Your task to perform on an android device: Open settings on Google Maps Image 0: 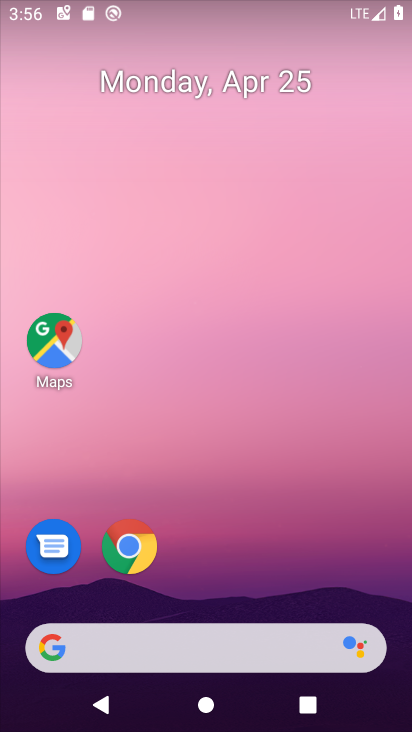
Step 0: drag from (263, 528) to (310, 106)
Your task to perform on an android device: Open settings on Google Maps Image 1: 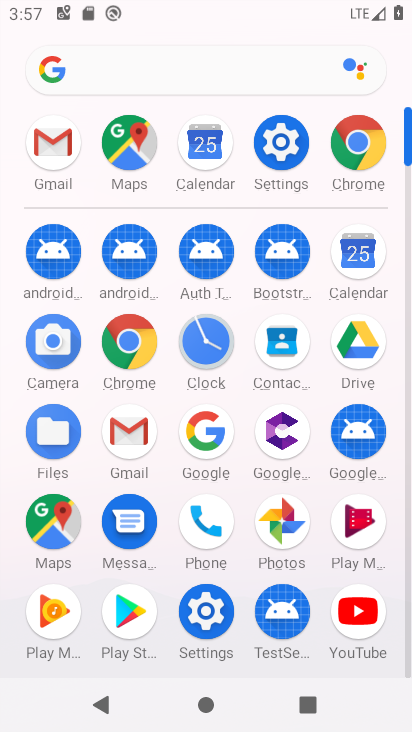
Step 1: click (130, 130)
Your task to perform on an android device: Open settings on Google Maps Image 2: 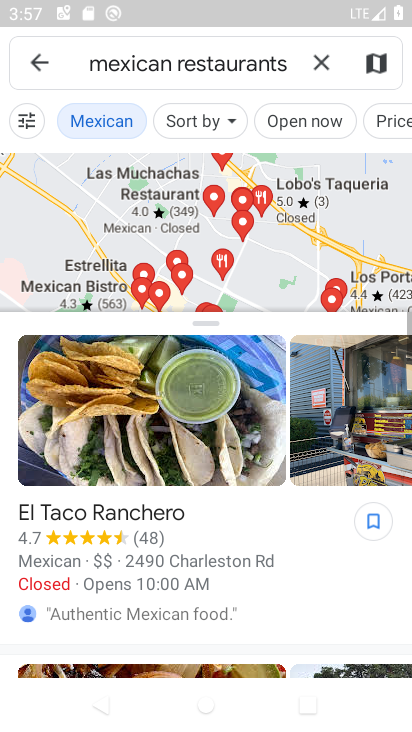
Step 2: click (38, 66)
Your task to perform on an android device: Open settings on Google Maps Image 3: 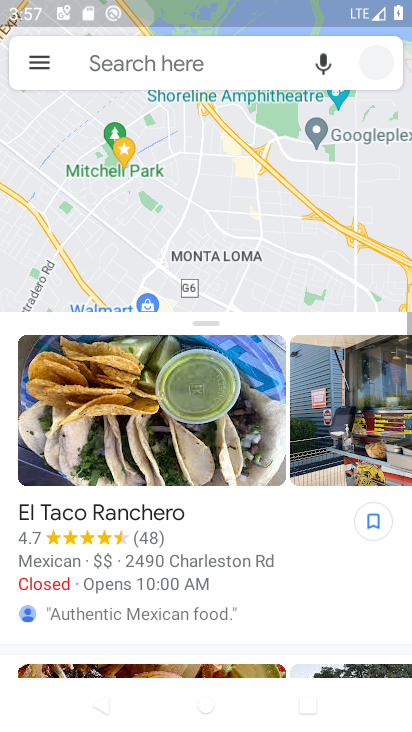
Step 3: click (32, 65)
Your task to perform on an android device: Open settings on Google Maps Image 4: 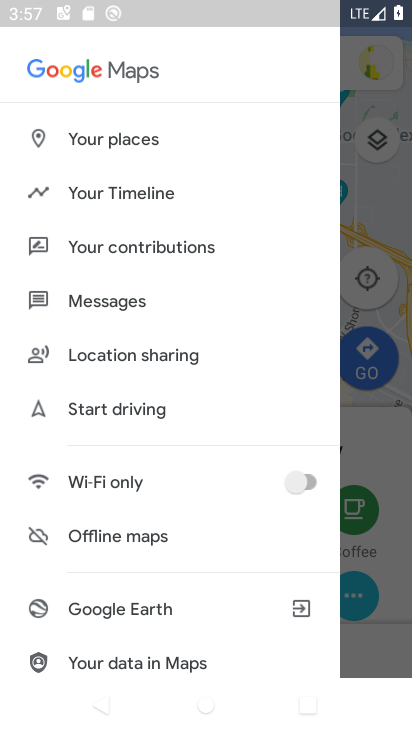
Step 4: drag from (142, 588) to (235, 173)
Your task to perform on an android device: Open settings on Google Maps Image 5: 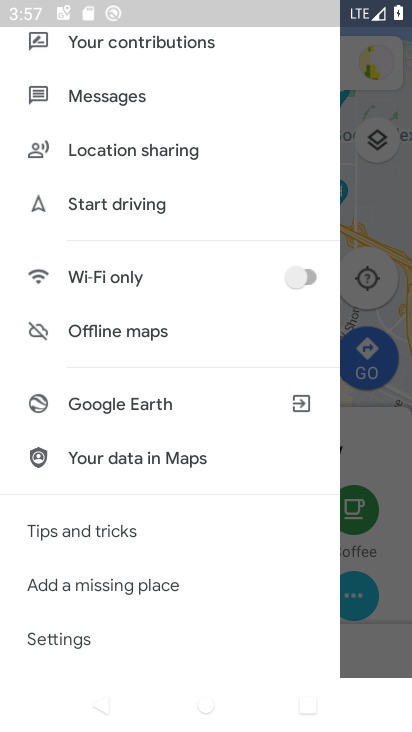
Step 5: click (100, 637)
Your task to perform on an android device: Open settings on Google Maps Image 6: 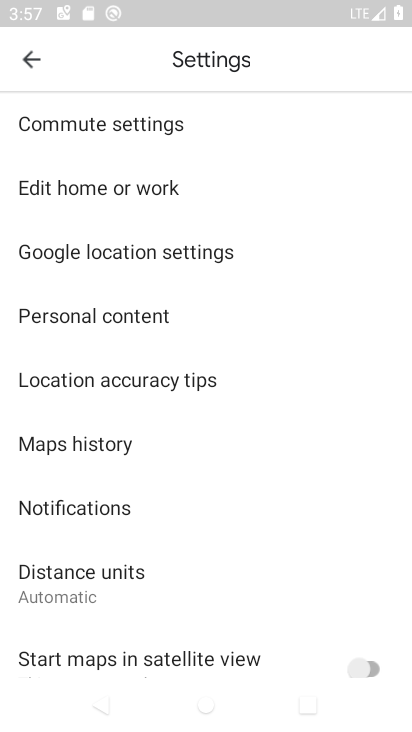
Step 6: task complete